Your task to perform on an android device: Go to ESPN.com Image 0: 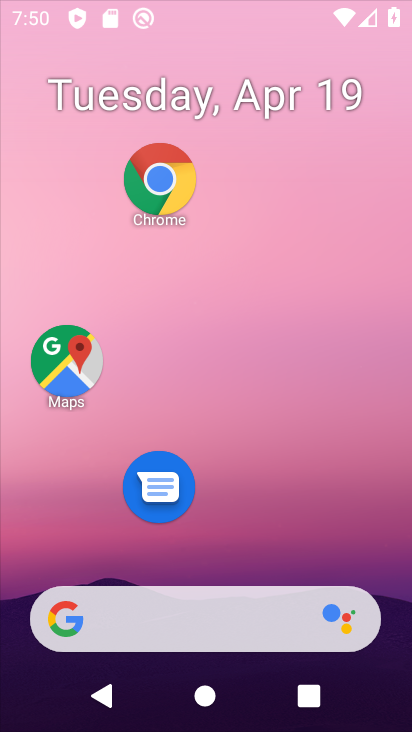
Step 0: click (147, 106)
Your task to perform on an android device: Go to ESPN.com Image 1: 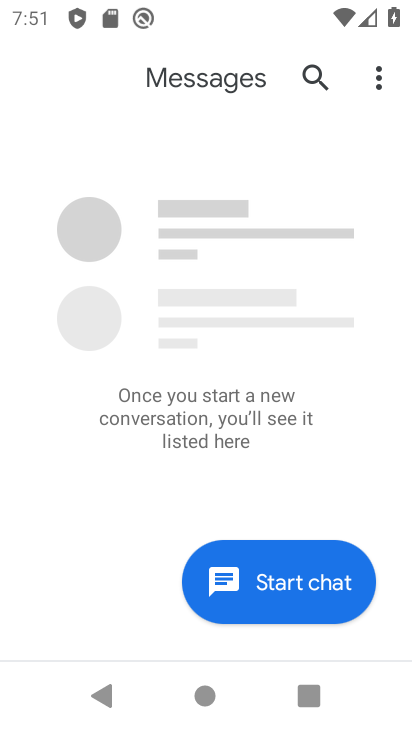
Step 1: press home button
Your task to perform on an android device: Go to ESPN.com Image 2: 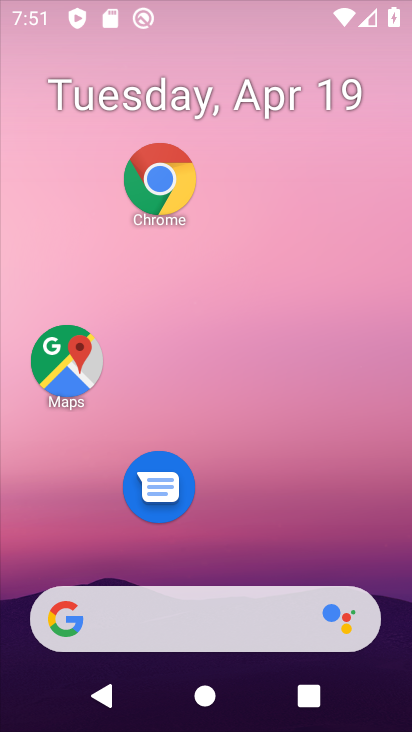
Step 2: drag from (299, 624) to (214, 1)
Your task to perform on an android device: Go to ESPN.com Image 3: 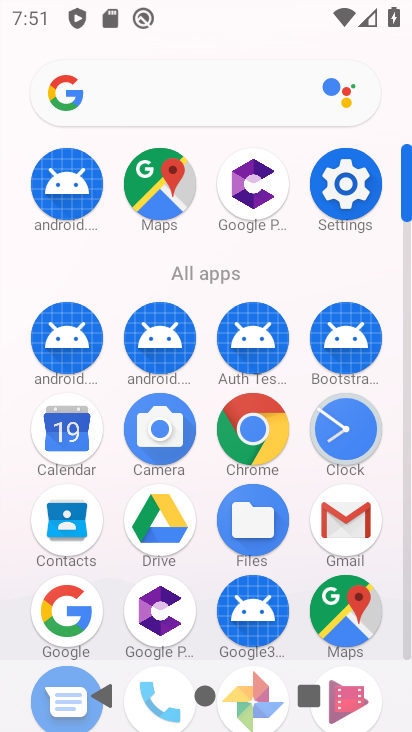
Step 3: drag from (244, 625) to (159, 40)
Your task to perform on an android device: Go to ESPN.com Image 4: 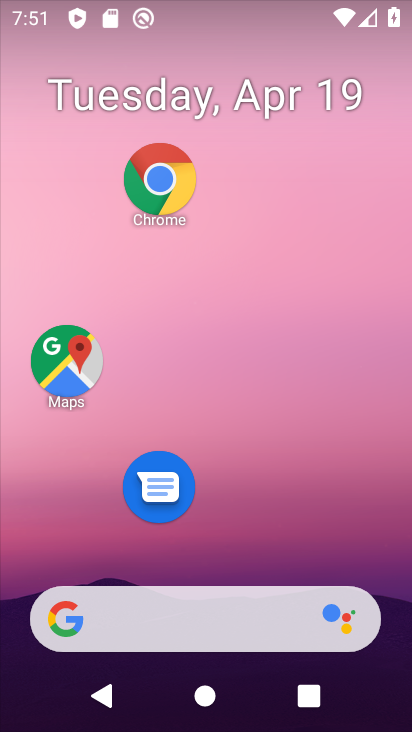
Step 4: drag from (258, 663) to (250, 135)
Your task to perform on an android device: Go to ESPN.com Image 5: 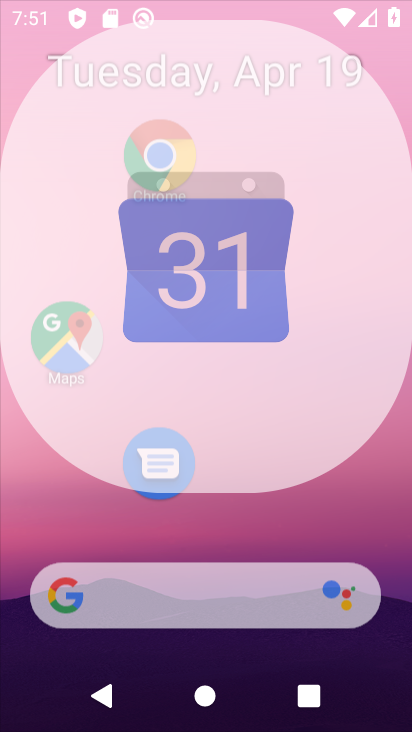
Step 5: drag from (256, 624) to (212, 123)
Your task to perform on an android device: Go to ESPN.com Image 6: 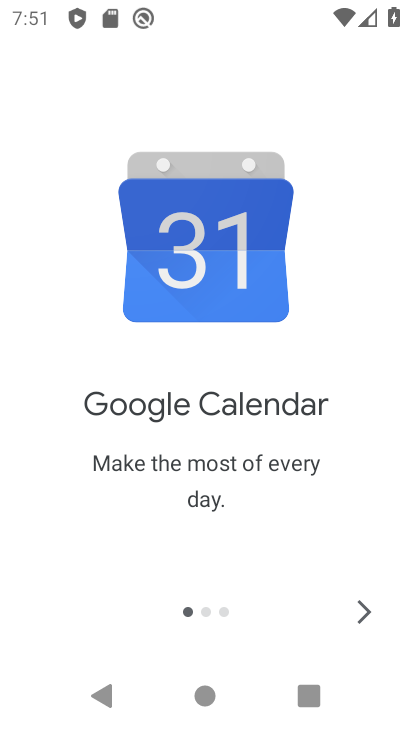
Step 6: click (370, 605)
Your task to perform on an android device: Go to ESPN.com Image 7: 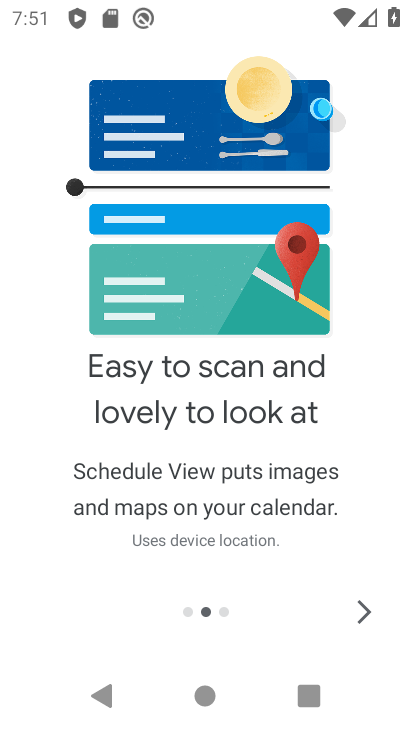
Step 7: click (366, 602)
Your task to perform on an android device: Go to ESPN.com Image 8: 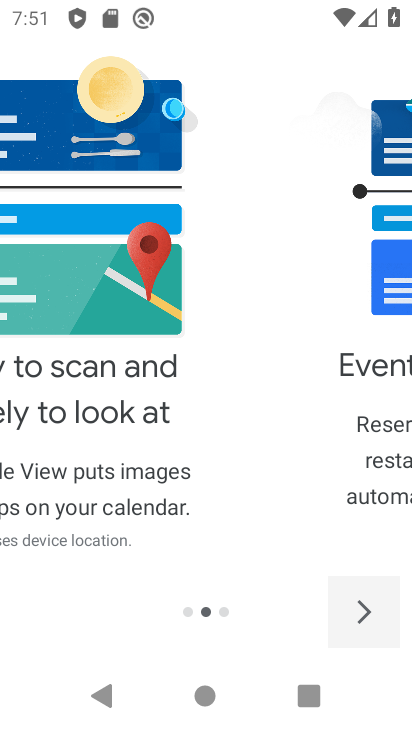
Step 8: click (366, 602)
Your task to perform on an android device: Go to ESPN.com Image 9: 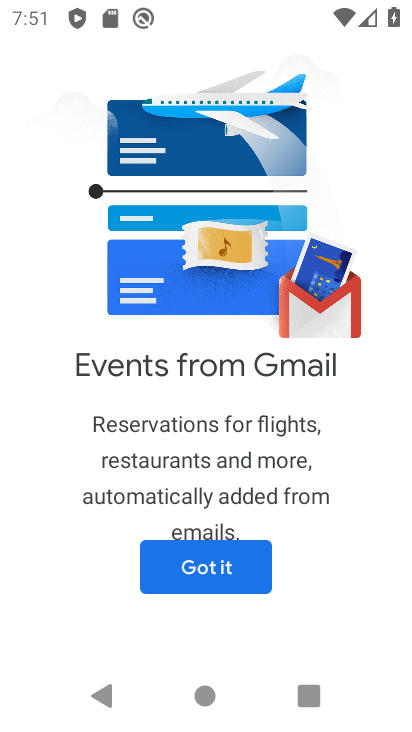
Step 9: click (209, 565)
Your task to perform on an android device: Go to ESPN.com Image 10: 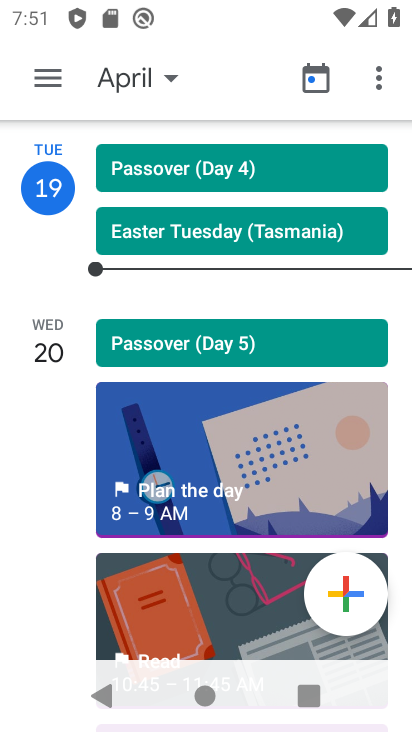
Step 10: press home button
Your task to perform on an android device: Go to ESPN.com Image 11: 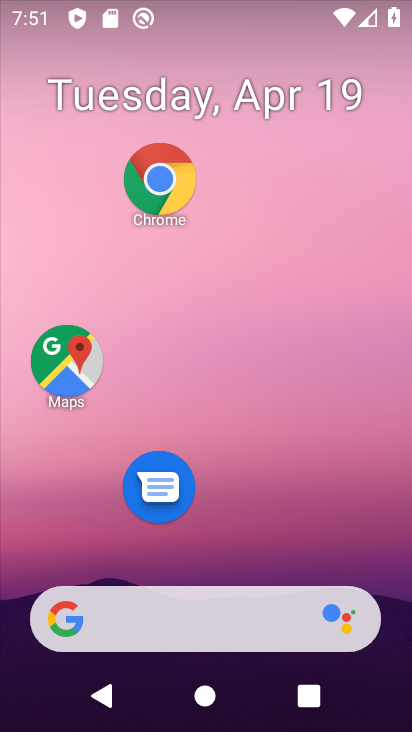
Step 11: drag from (225, 572) to (210, 148)
Your task to perform on an android device: Go to ESPN.com Image 12: 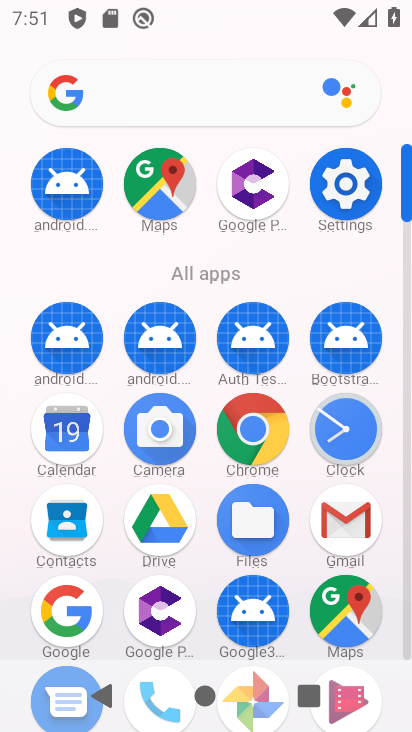
Step 12: click (247, 425)
Your task to perform on an android device: Go to ESPN.com Image 13: 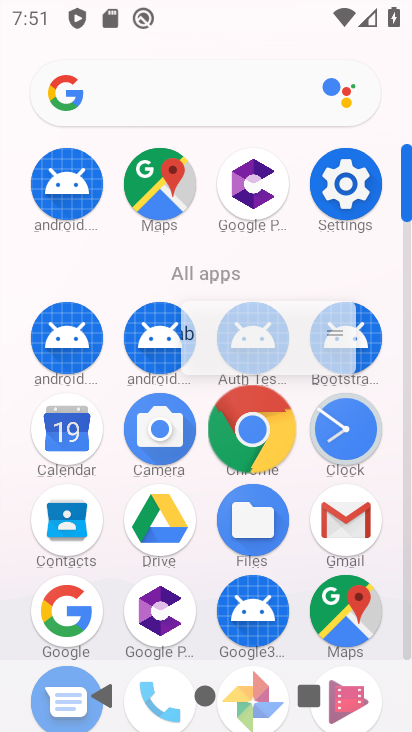
Step 13: click (247, 425)
Your task to perform on an android device: Go to ESPN.com Image 14: 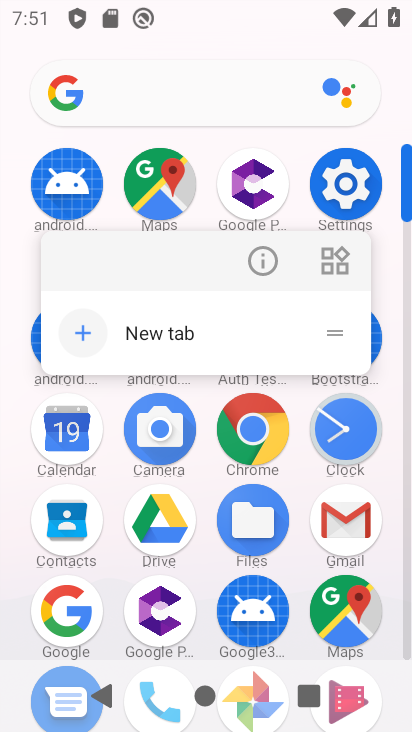
Step 14: click (250, 422)
Your task to perform on an android device: Go to ESPN.com Image 15: 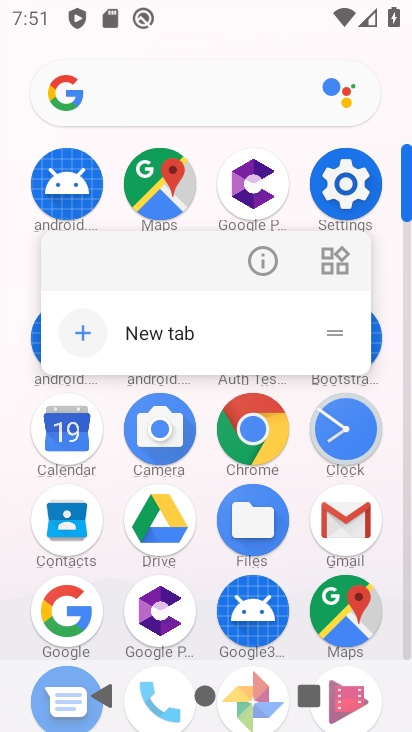
Step 15: click (263, 415)
Your task to perform on an android device: Go to ESPN.com Image 16: 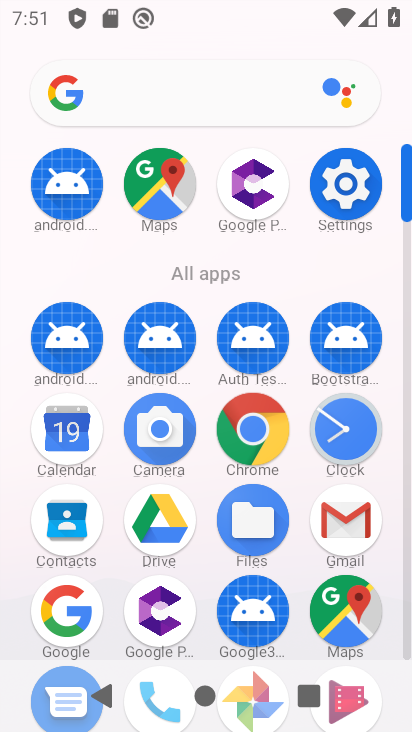
Step 16: click (259, 415)
Your task to perform on an android device: Go to ESPN.com Image 17: 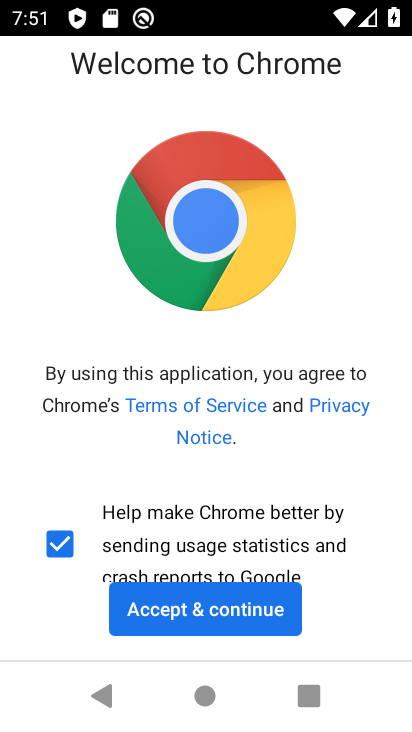
Step 17: click (249, 605)
Your task to perform on an android device: Go to ESPN.com Image 18: 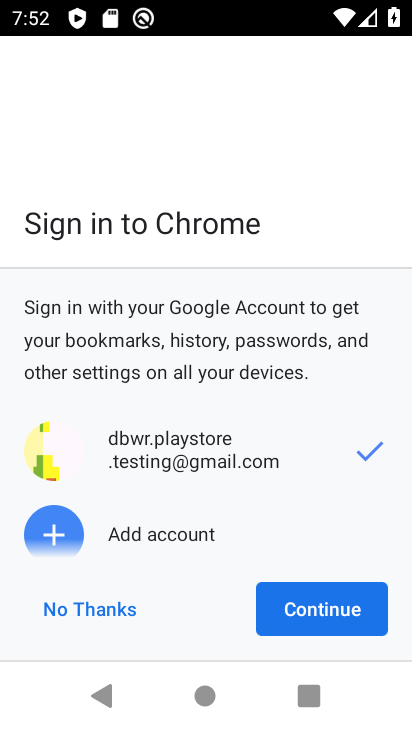
Step 18: click (311, 600)
Your task to perform on an android device: Go to ESPN.com Image 19: 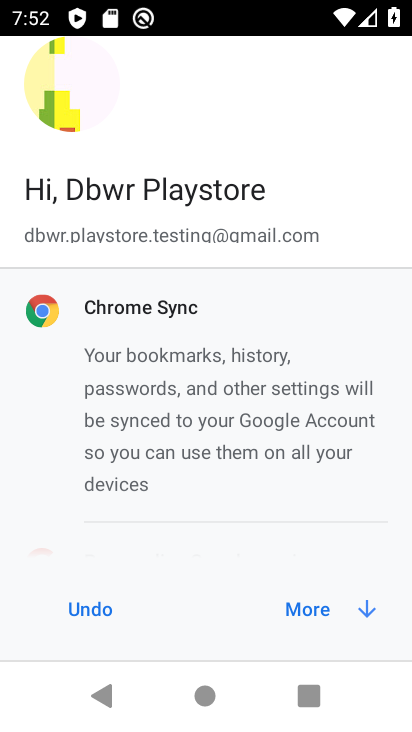
Step 19: click (316, 599)
Your task to perform on an android device: Go to ESPN.com Image 20: 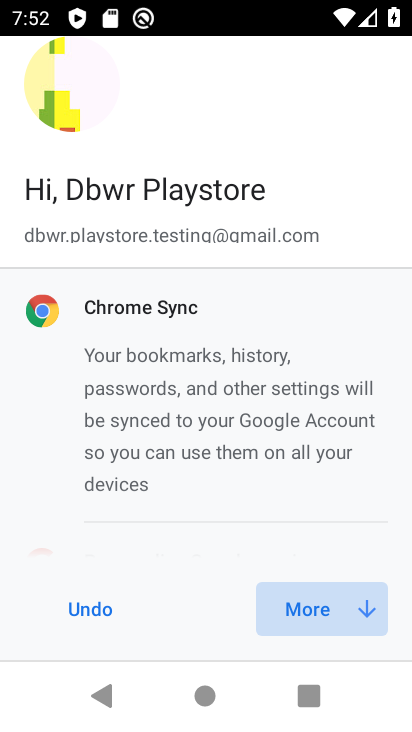
Step 20: click (321, 596)
Your task to perform on an android device: Go to ESPN.com Image 21: 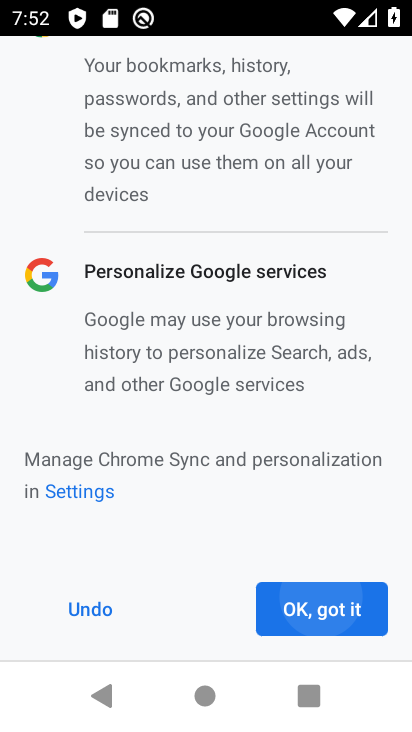
Step 21: click (320, 594)
Your task to perform on an android device: Go to ESPN.com Image 22: 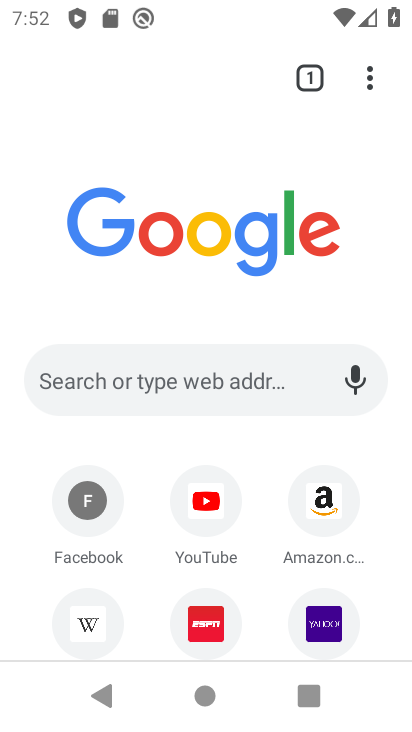
Step 22: click (205, 616)
Your task to perform on an android device: Go to ESPN.com Image 23: 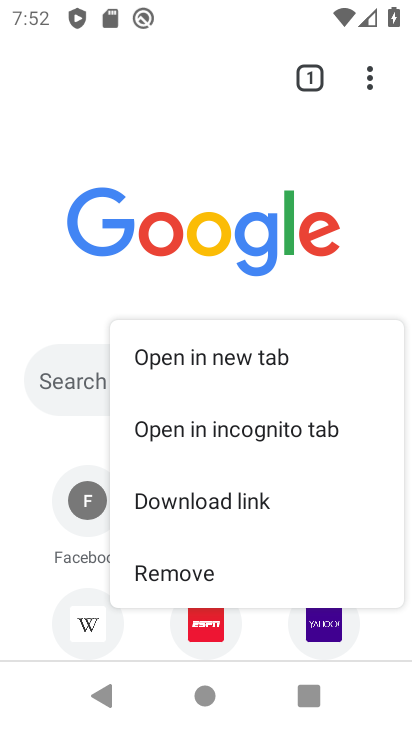
Step 23: click (195, 623)
Your task to perform on an android device: Go to ESPN.com Image 24: 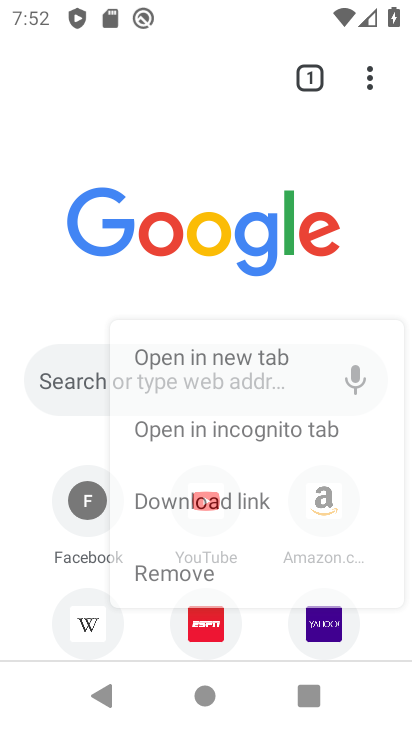
Step 24: click (195, 609)
Your task to perform on an android device: Go to ESPN.com Image 25: 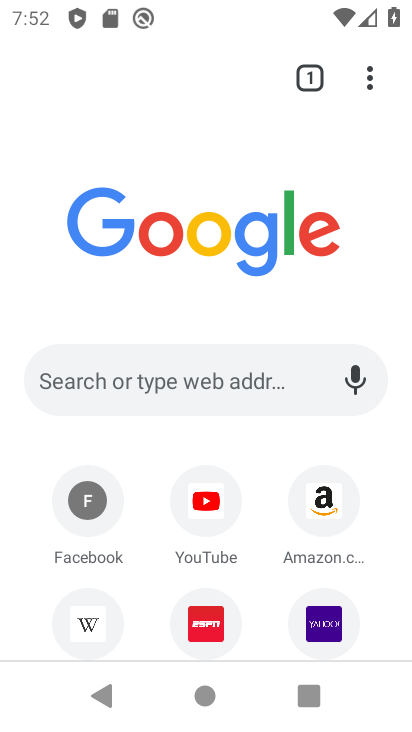
Step 25: click (195, 611)
Your task to perform on an android device: Go to ESPN.com Image 26: 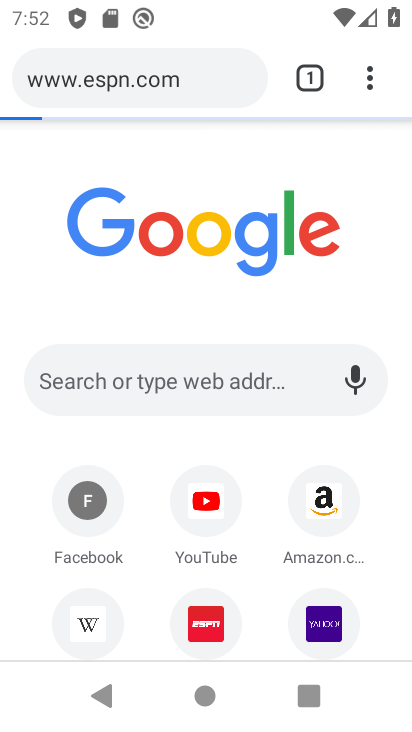
Step 26: click (168, 631)
Your task to perform on an android device: Go to ESPN.com Image 27: 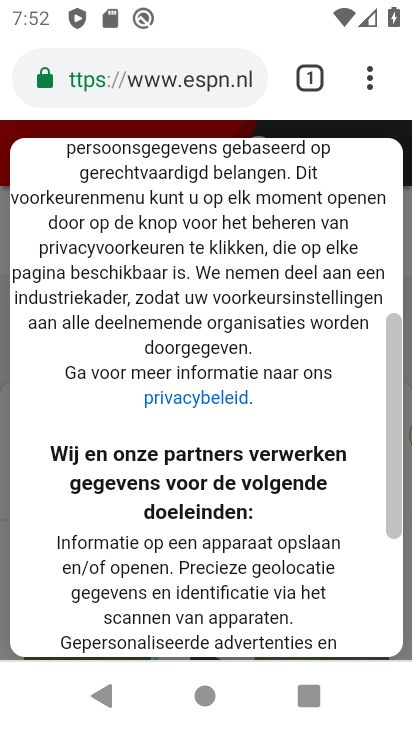
Step 27: task complete